Your task to perform on an android device: change your default location settings in chrome Image 0: 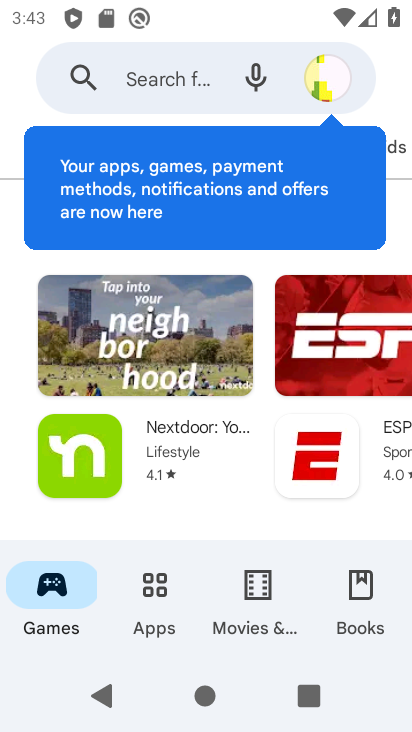
Step 0: press back button
Your task to perform on an android device: change your default location settings in chrome Image 1: 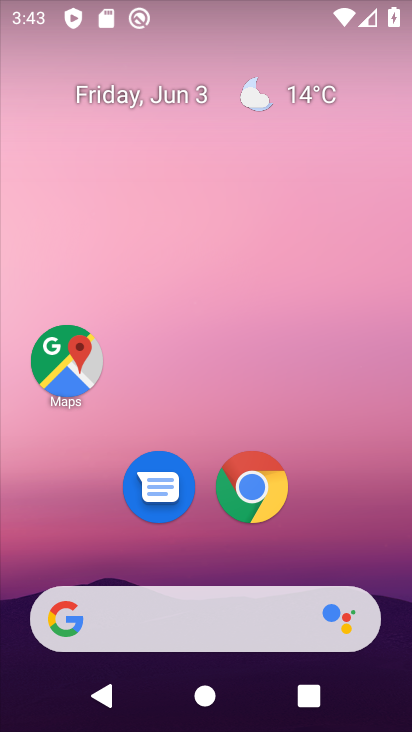
Step 1: click (260, 476)
Your task to perform on an android device: change your default location settings in chrome Image 2: 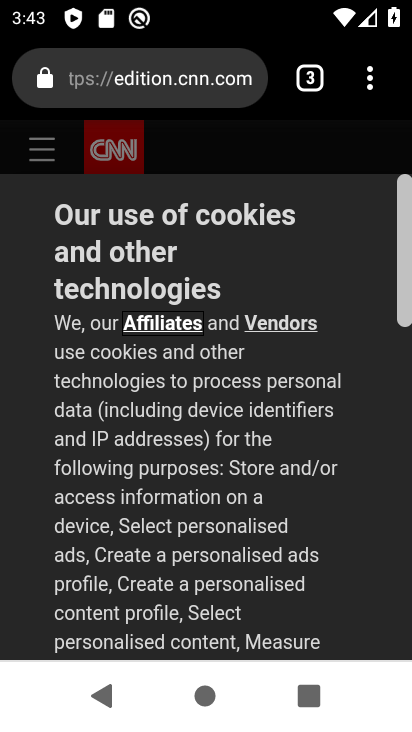
Step 2: drag from (373, 76) to (103, 545)
Your task to perform on an android device: change your default location settings in chrome Image 3: 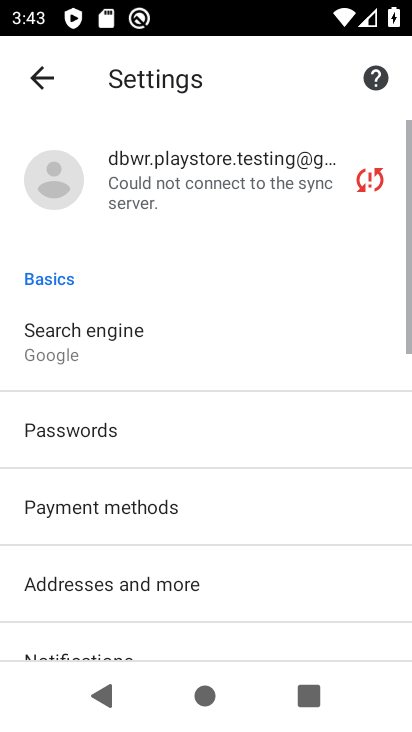
Step 3: drag from (147, 539) to (232, 101)
Your task to perform on an android device: change your default location settings in chrome Image 4: 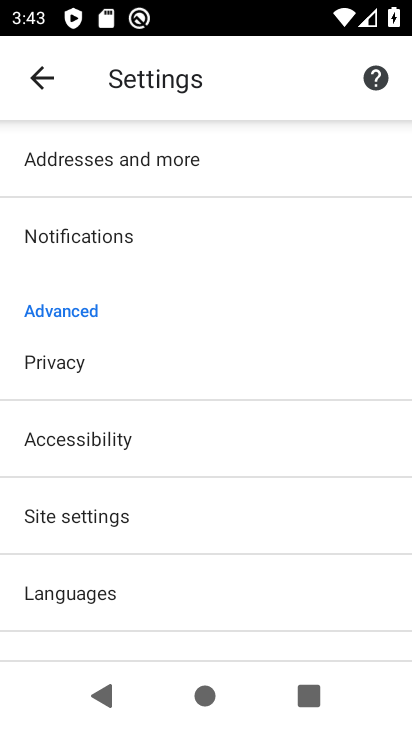
Step 4: click (64, 511)
Your task to perform on an android device: change your default location settings in chrome Image 5: 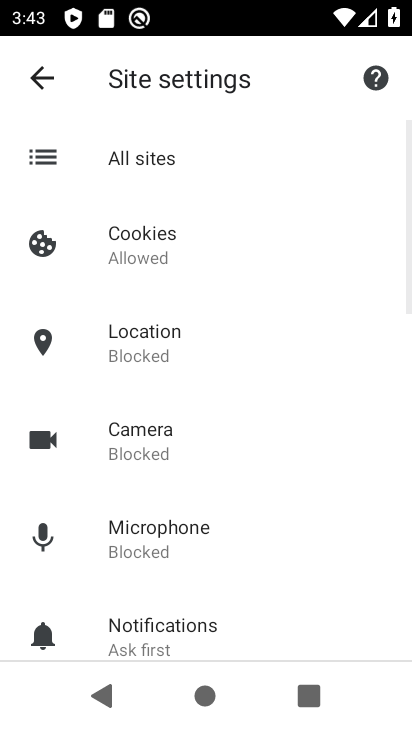
Step 5: click (155, 337)
Your task to perform on an android device: change your default location settings in chrome Image 6: 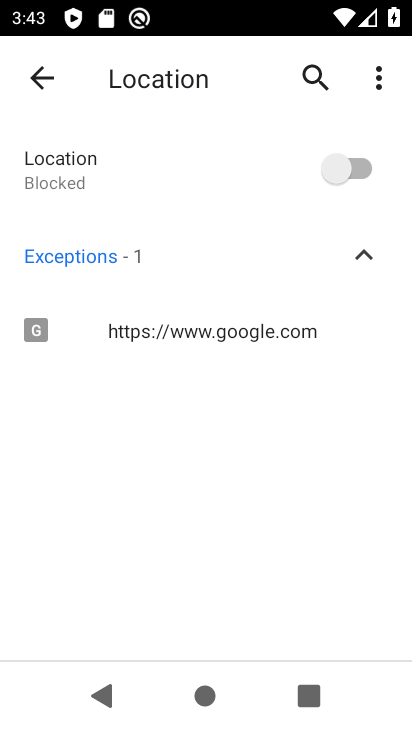
Step 6: click (334, 170)
Your task to perform on an android device: change your default location settings in chrome Image 7: 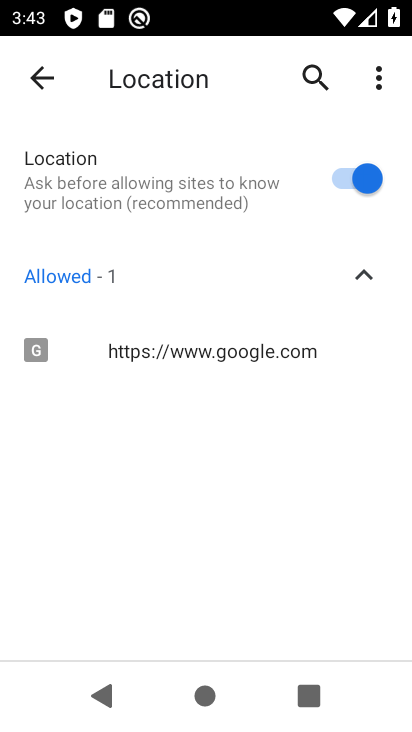
Step 7: task complete